Your task to perform on an android device: Go to Reddit.com Image 0: 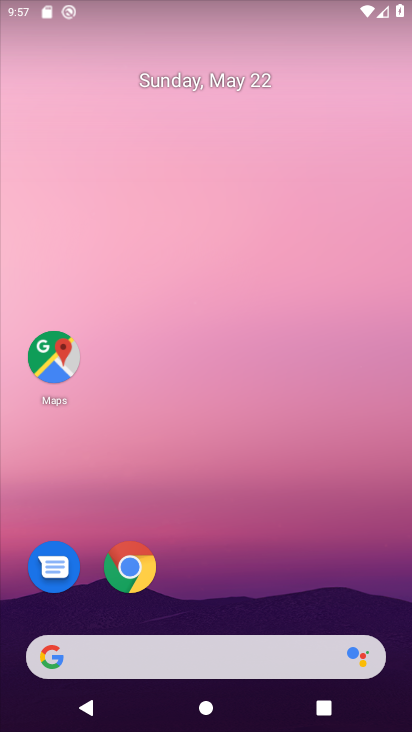
Step 0: press home button
Your task to perform on an android device: Go to Reddit.com Image 1: 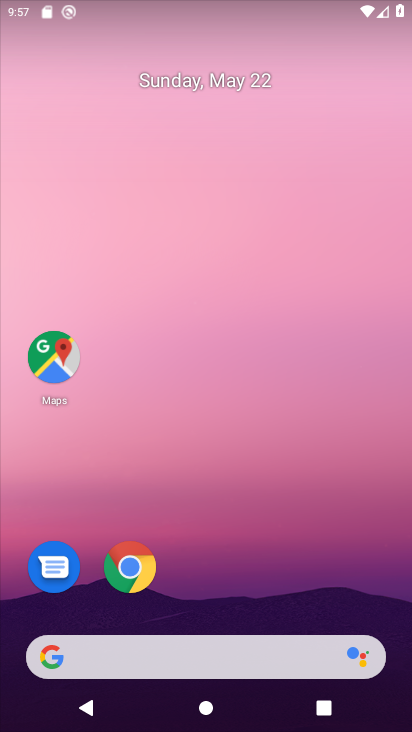
Step 1: click (127, 558)
Your task to perform on an android device: Go to Reddit.com Image 2: 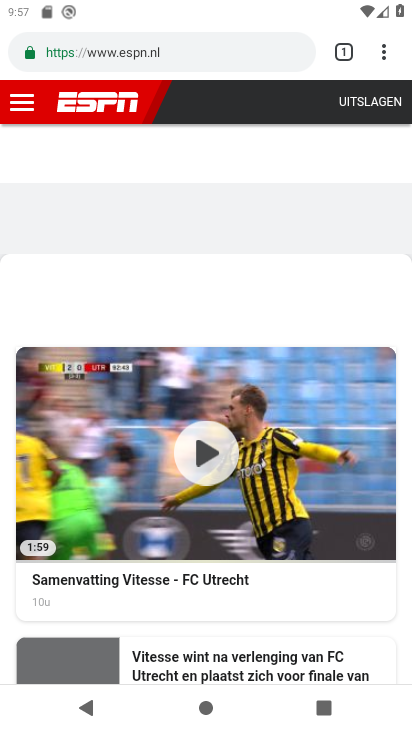
Step 2: click (341, 48)
Your task to perform on an android device: Go to Reddit.com Image 3: 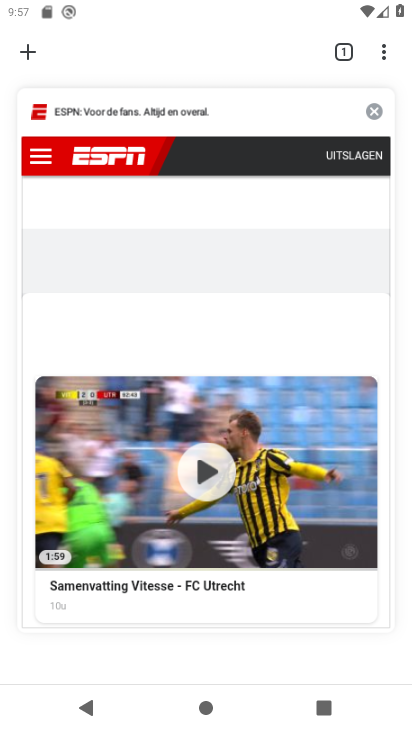
Step 3: click (373, 109)
Your task to perform on an android device: Go to Reddit.com Image 4: 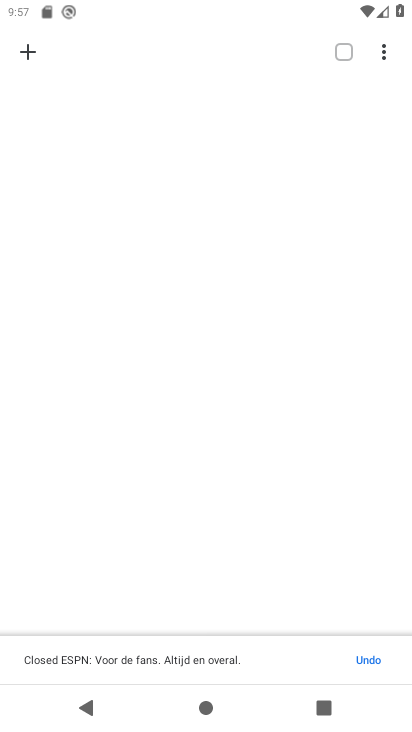
Step 4: click (34, 51)
Your task to perform on an android device: Go to Reddit.com Image 5: 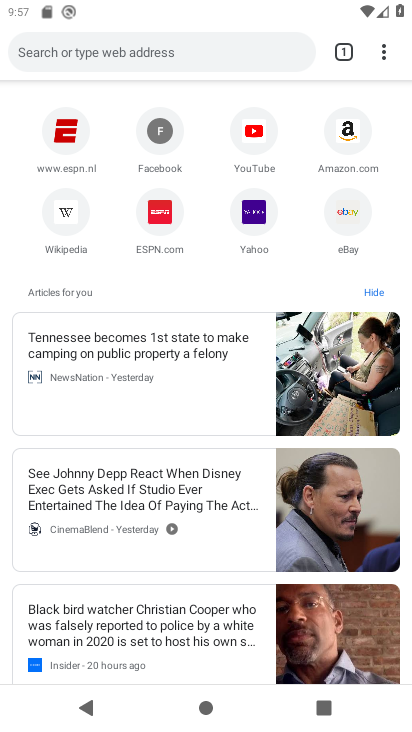
Step 5: click (119, 46)
Your task to perform on an android device: Go to Reddit.com Image 6: 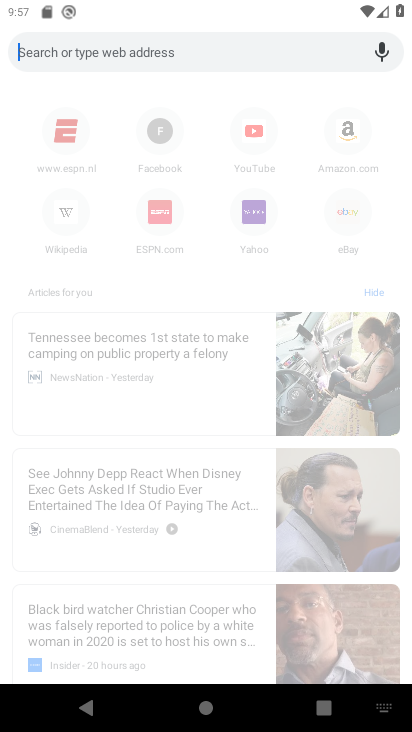
Step 6: type "reddit.com"
Your task to perform on an android device: Go to Reddit.com Image 7: 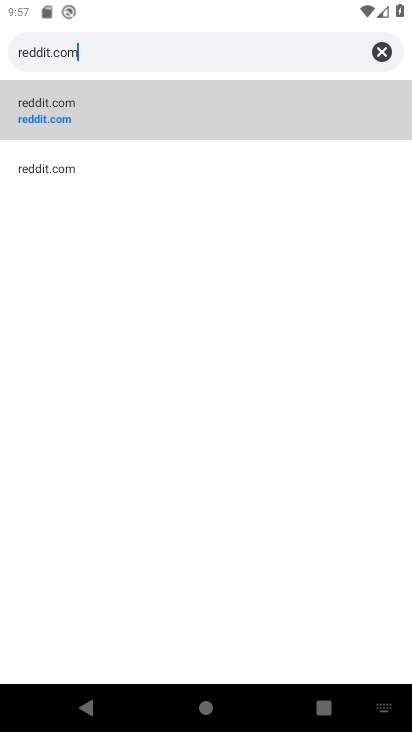
Step 7: click (79, 117)
Your task to perform on an android device: Go to Reddit.com Image 8: 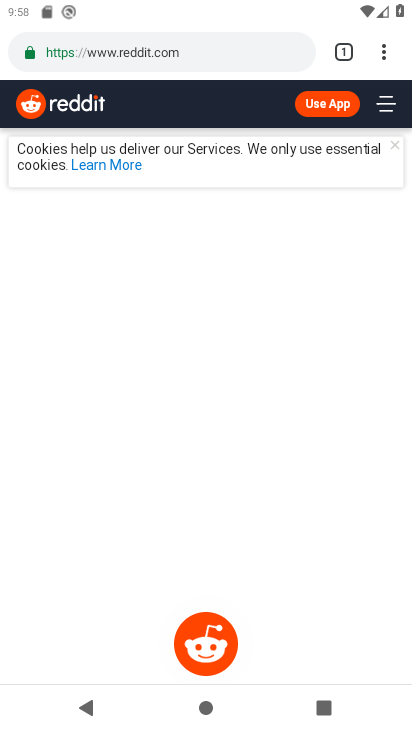
Step 8: task complete